Your task to perform on an android device: Go to Yahoo.com Image 0: 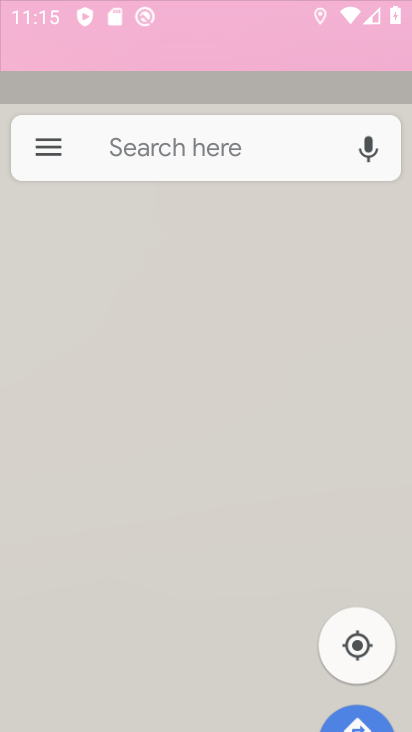
Step 0: drag from (296, 605) to (217, 435)
Your task to perform on an android device: Go to Yahoo.com Image 1: 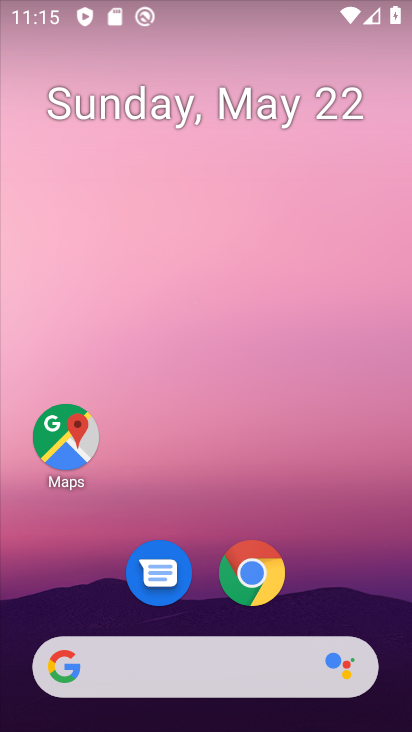
Step 1: click (271, 578)
Your task to perform on an android device: Go to Yahoo.com Image 2: 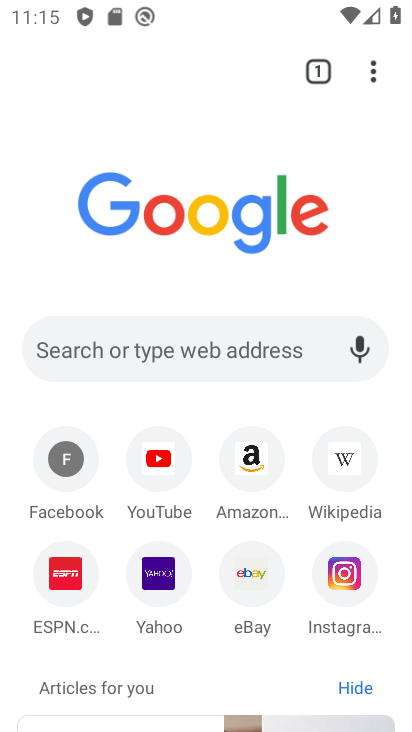
Step 2: click (156, 590)
Your task to perform on an android device: Go to Yahoo.com Image 3: 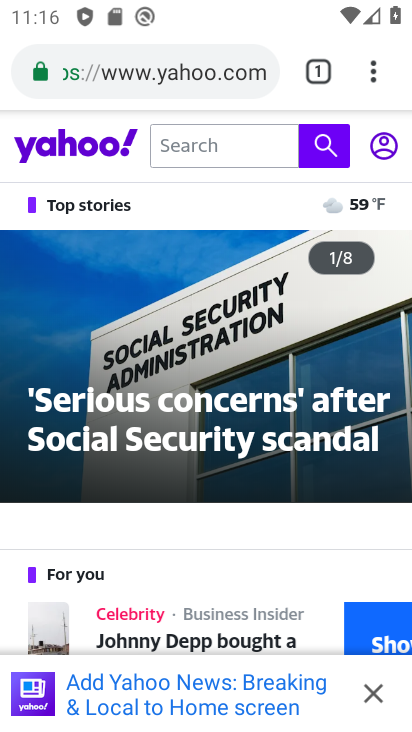
Step 3: task complete